Your task to perform on an android device: toggle javascript in the chrome app Image 0: 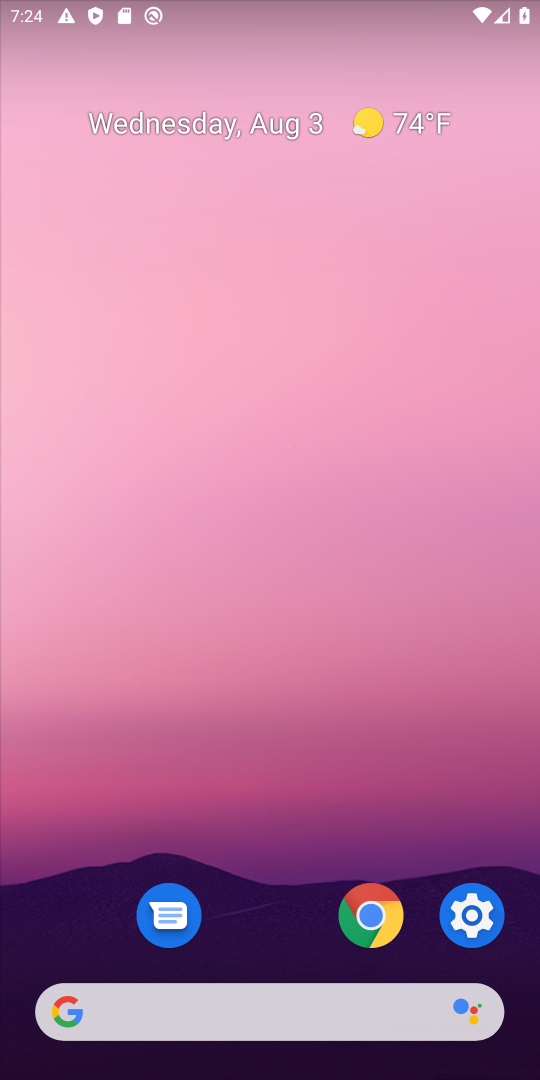
Step 0: click (385, 919)
Your task to perform on an android device: toggle javascript in the chrome app Image 1: 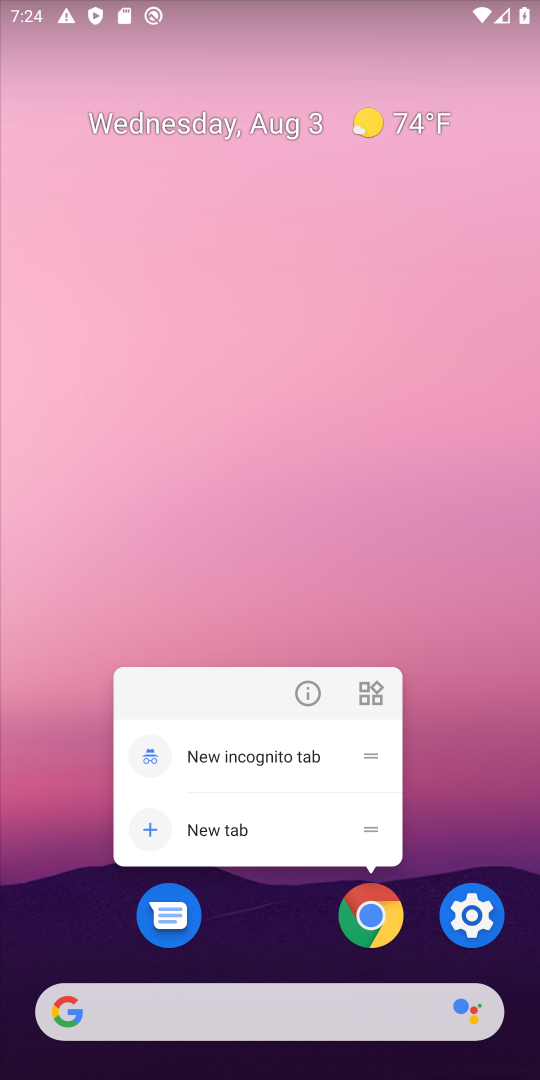
Step 1: click (365, 917)
Your task to perform on an android device: toggle javascript in the chrome app Image 2: 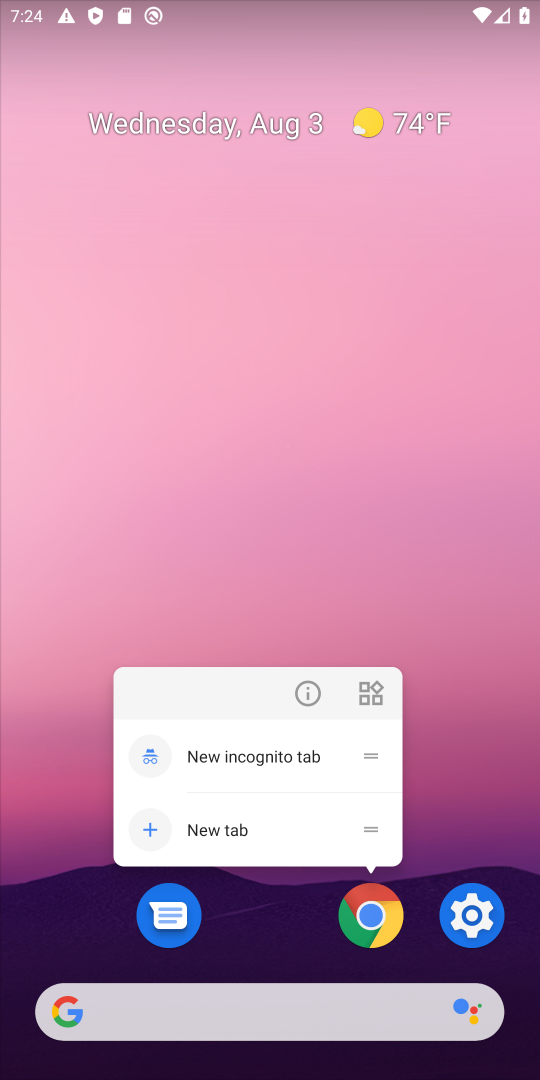
Step 2: click (365, 917)
Your task to perform on an android device: toggle javascript in the chrome app Image 3: 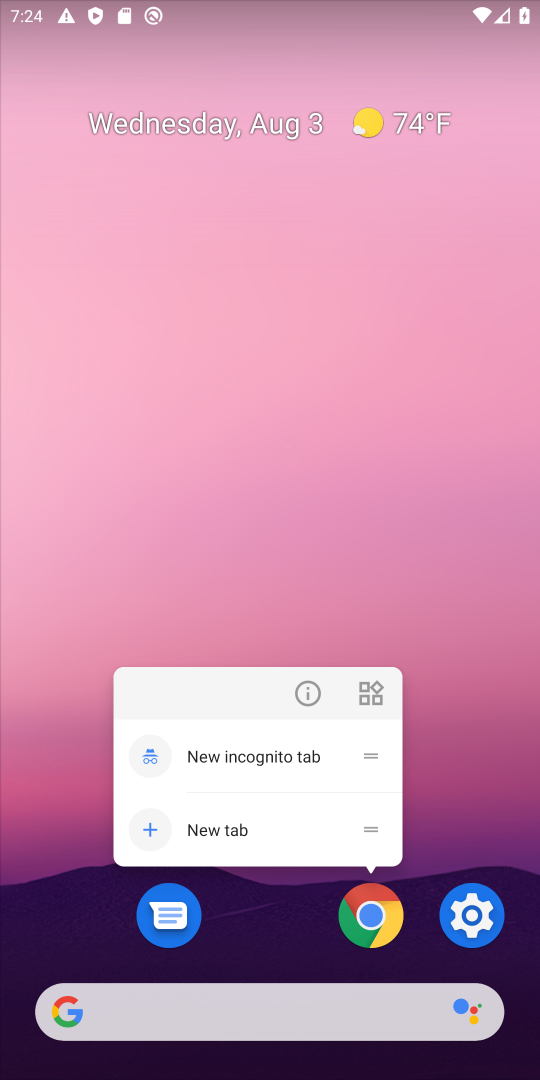
Step 3: drag from (322, 1036) to (248, 376)
Your task to perform on an android device: toggle javascript in the chrome app Image 4: 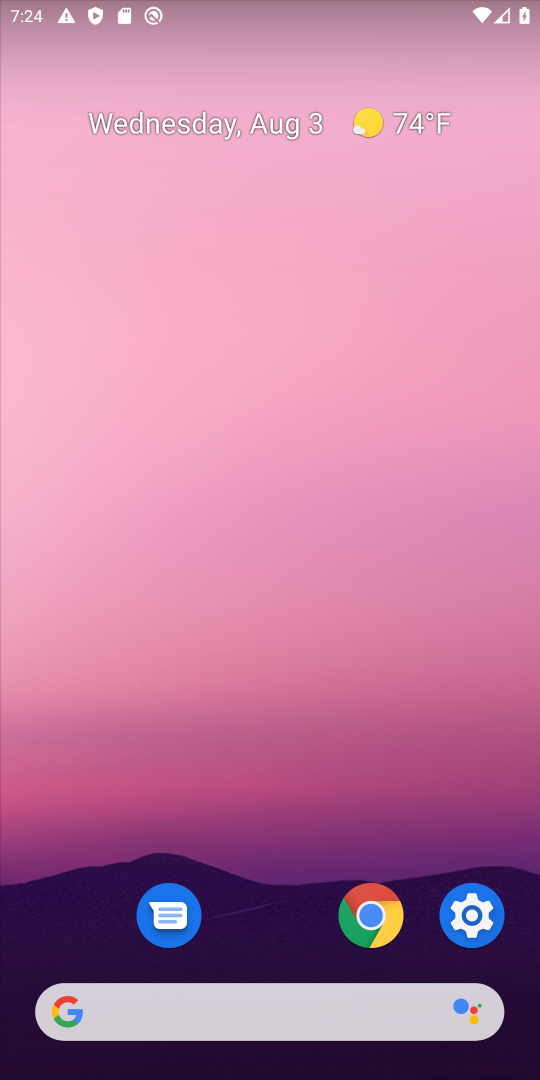
Step 4: drag from (261, 1039) to (213, 151)
Your task to perform on an android device: toggle javascript in the chrome app Image 5: 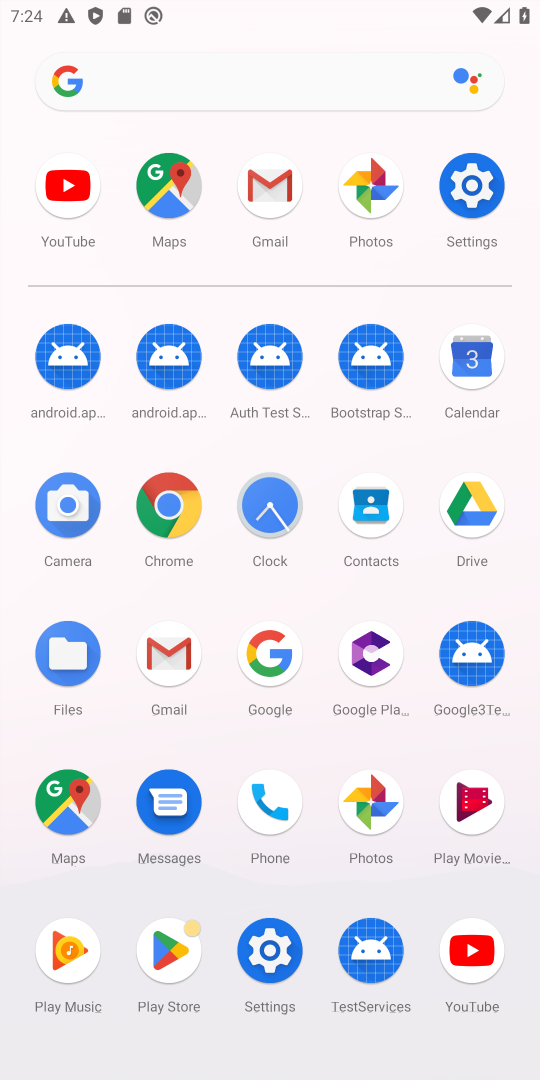
Step 5: click (162, 494)
Your task to perform on an android device: toggle javascript in the chrome app Image 6: 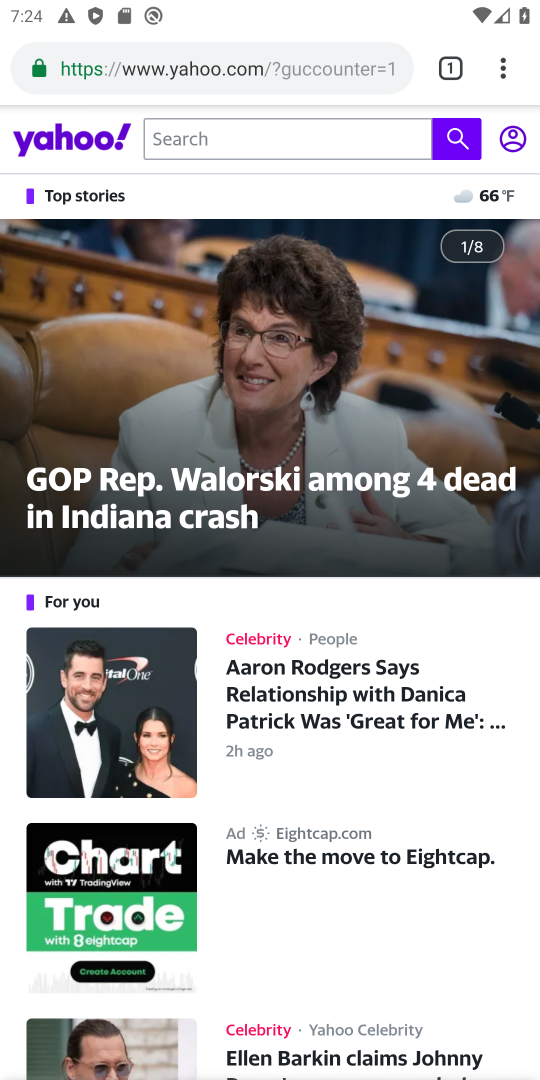
Step 6: click (511, 77)
Your task to perform on an android device: toggle javascript in the chrome app Image 7: 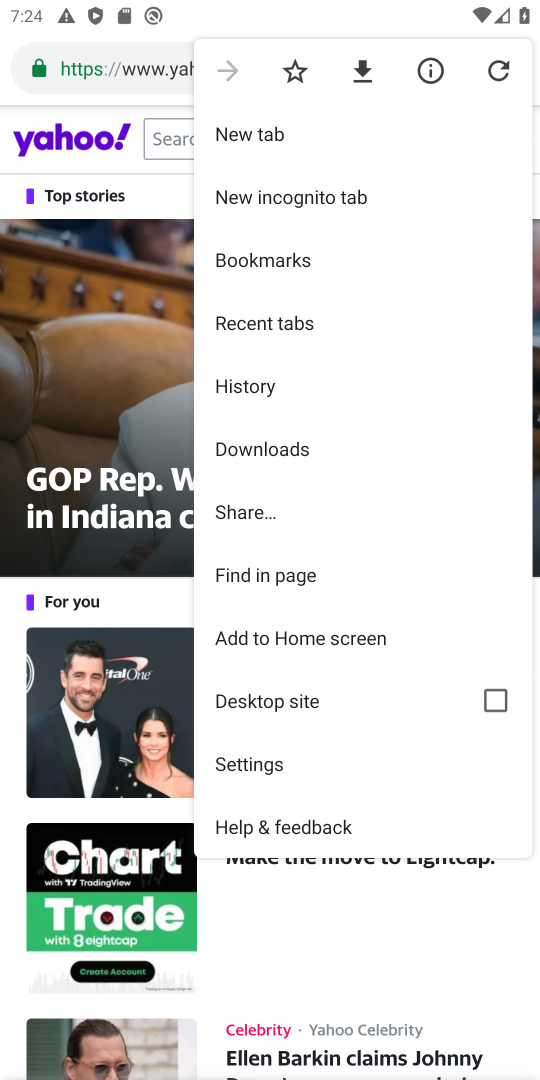
Step 7: click (270, 769)
Your task to perform on an android device: toggle javascript in the chrome app Image 8: 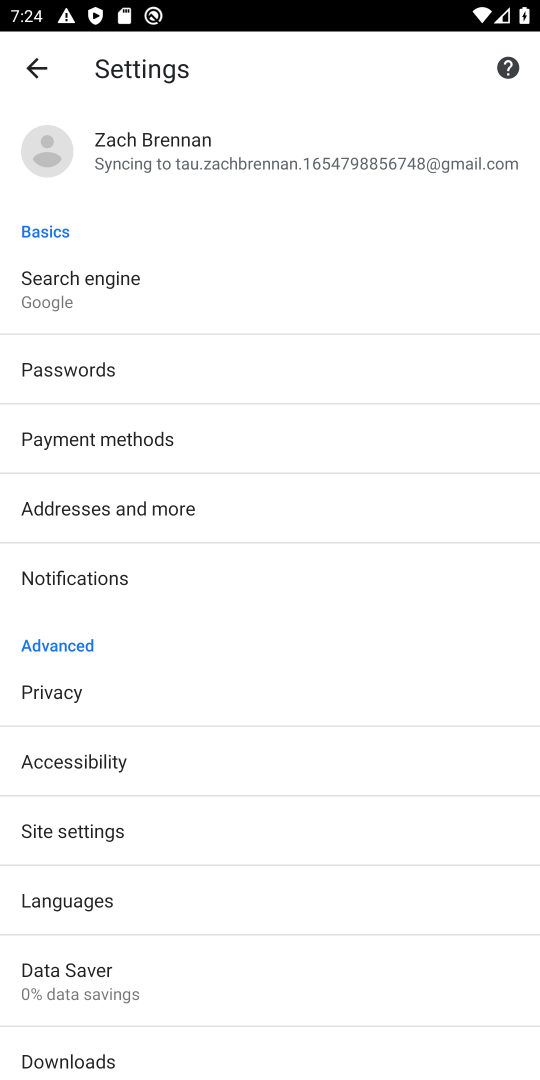
Step 8: click (141, 829)
Your task to perform on an android device: toggle javascript in the chrome app Image 9: 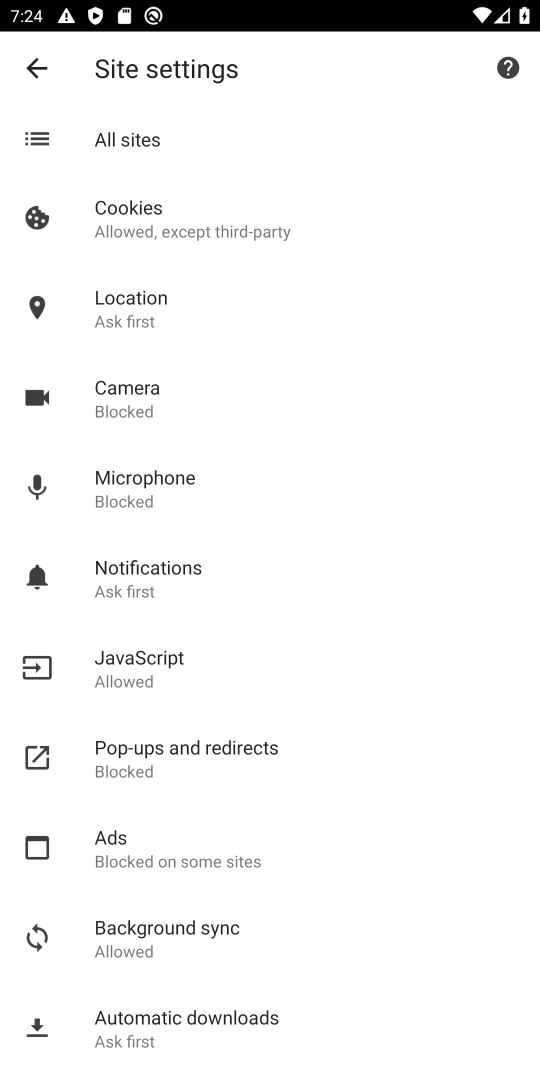
Step 9: click (169, 671)
Your task to perform on an android device: toggle javascript in the chrome app Image 10: 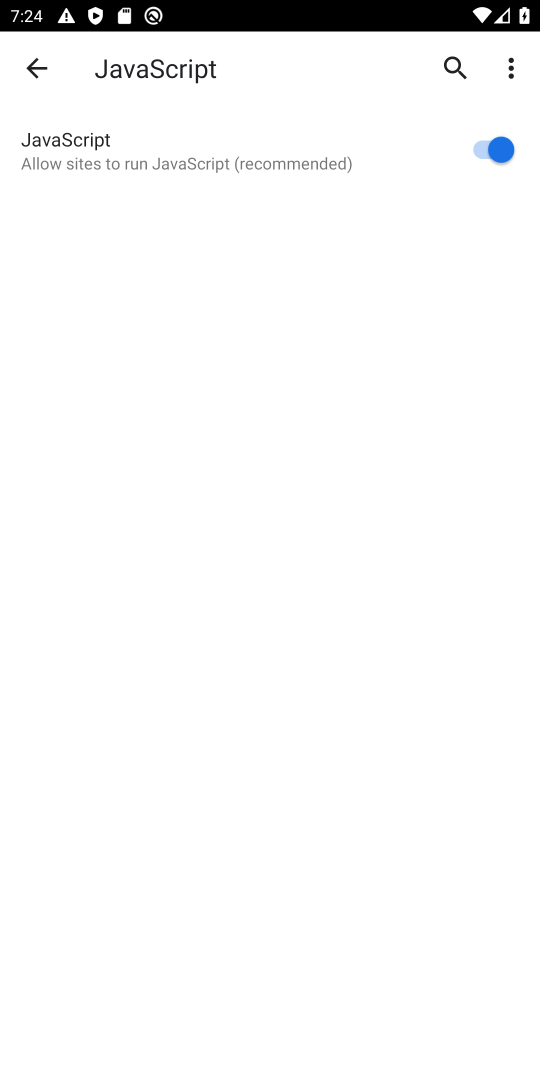
Step 10: click (474, 139)
Your task to perform on an android device: toggle javascript in the chrome app Image 11: 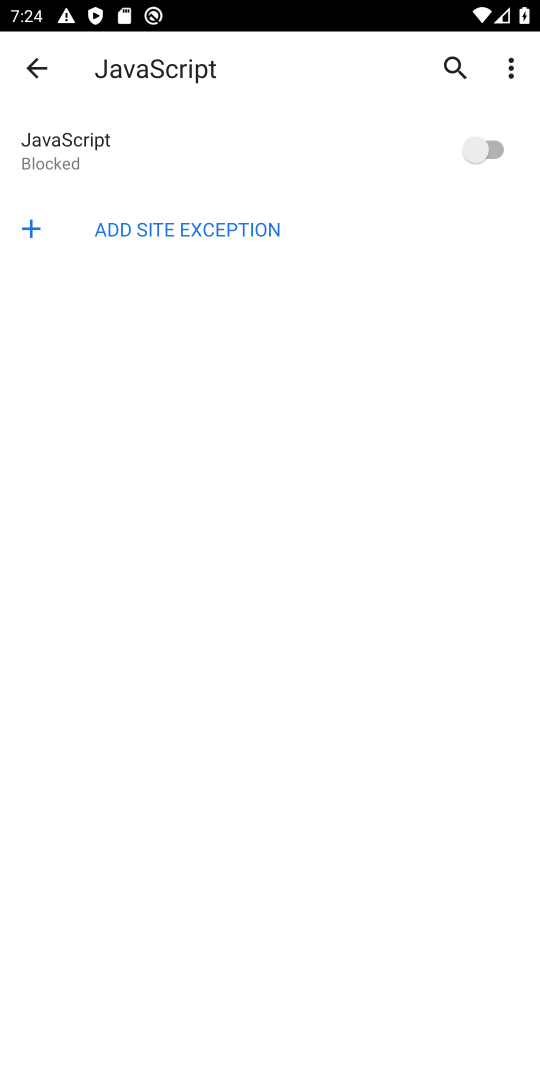
Step 11: click (483, 148)
Your task to perform on an android device: toggle javascript in the chrome app Image 12: 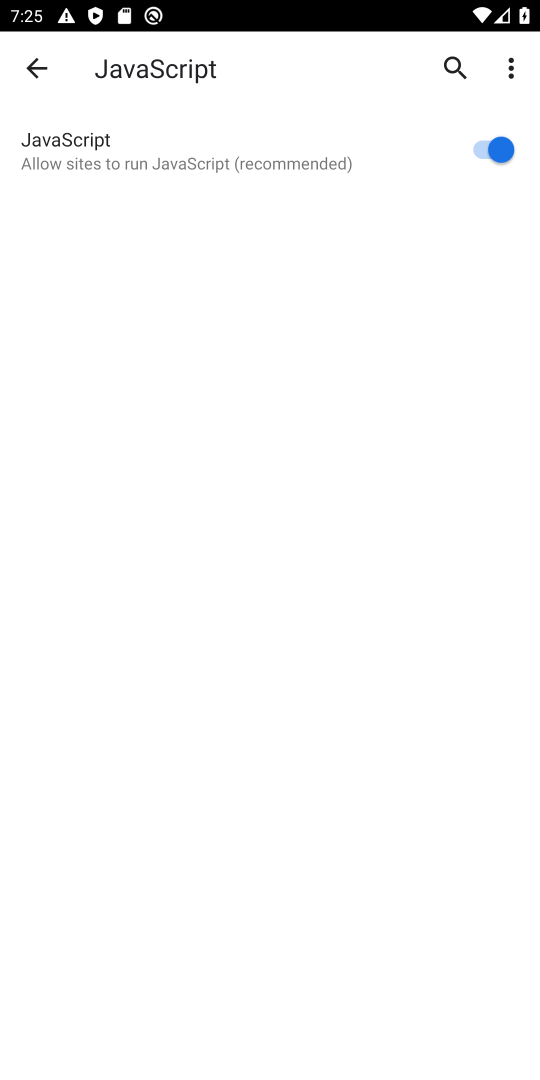
Step 12: task complete